Your task to perform on an android device: Turn off the flashlight Image 0: 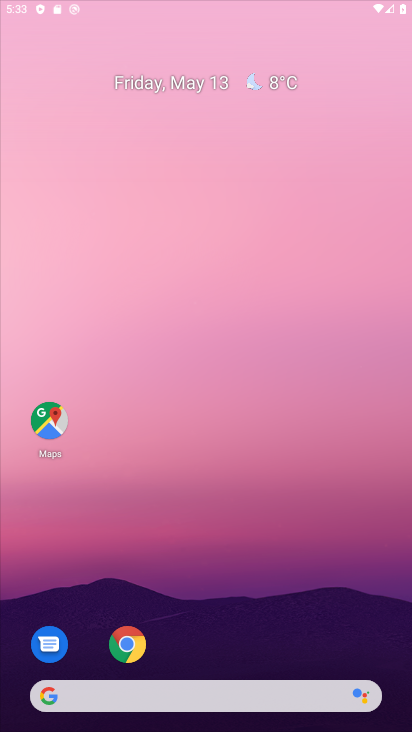
Step 0: click (214, 687)
Your task to perform on an android device: Turn off the flashlight Image 1: 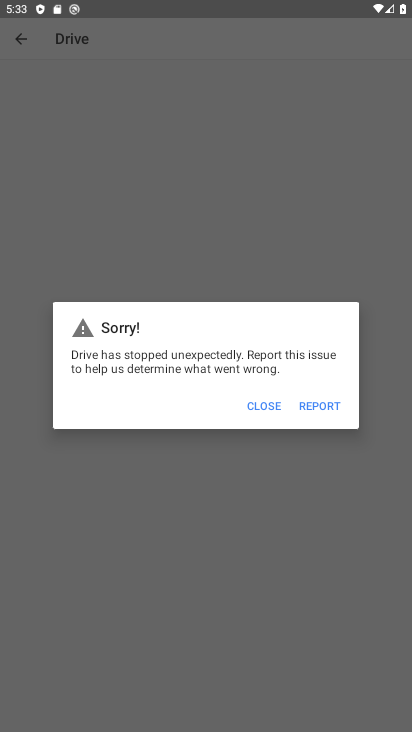
Step 1: press home button
Your task to perform on an android device: Turn off the flashlight Image 2: 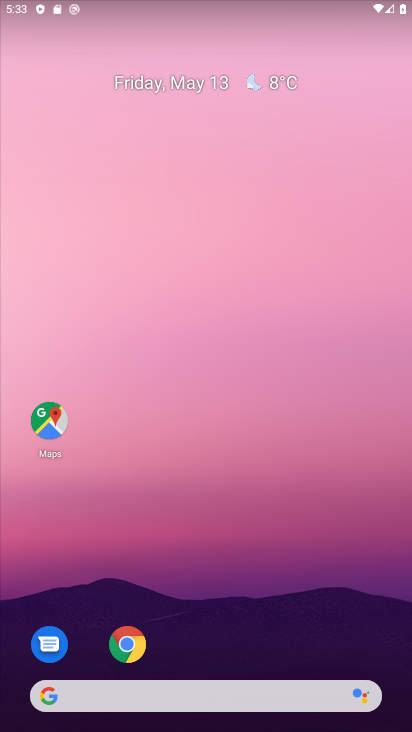
Step 2: drag from (303, 572) to (138, 85)
Your task to perform on an android device: Turn off the flashlight Image 3: 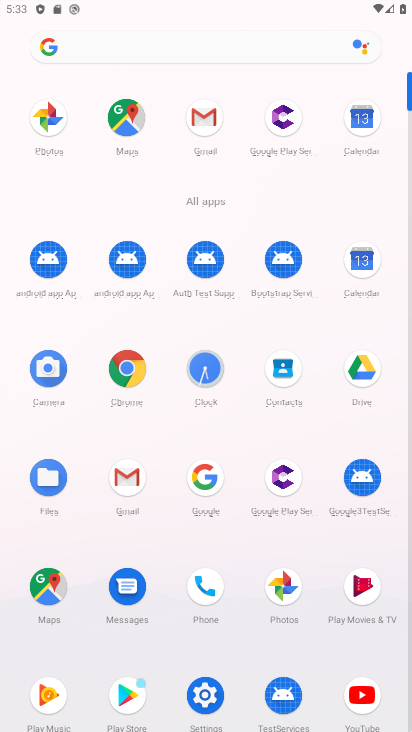
Step 3: click (210, 686)
Your task to perform on an android device: Turn off the flashlight Image 4: 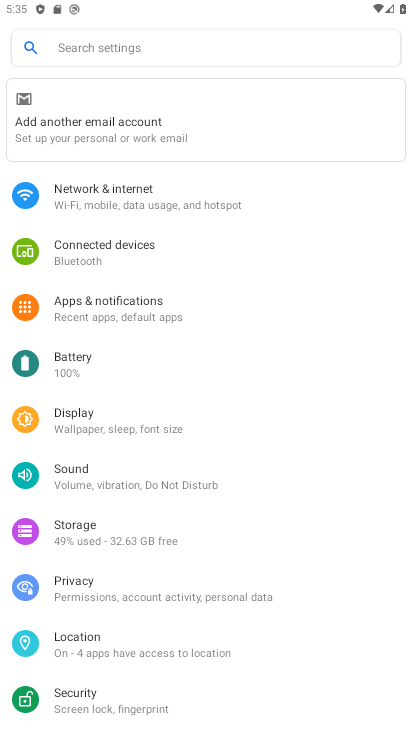
Step 4: click (91, 309)
Your task to perform on an android device: Turn off the flashlight Image 5: 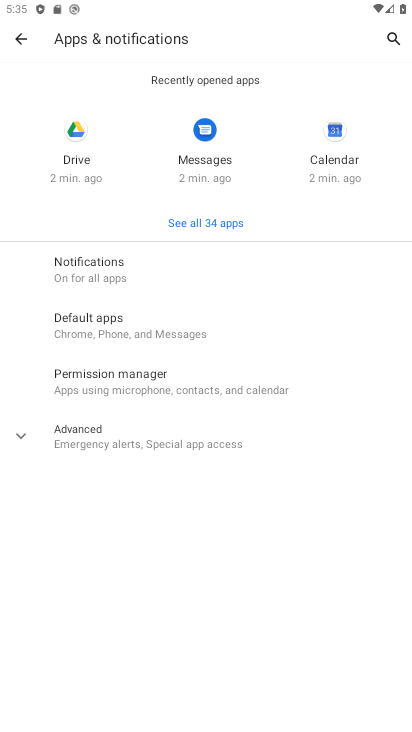
Step 5: task complete